Your task to perform on an android device: clear history in the chrome app Image 0: 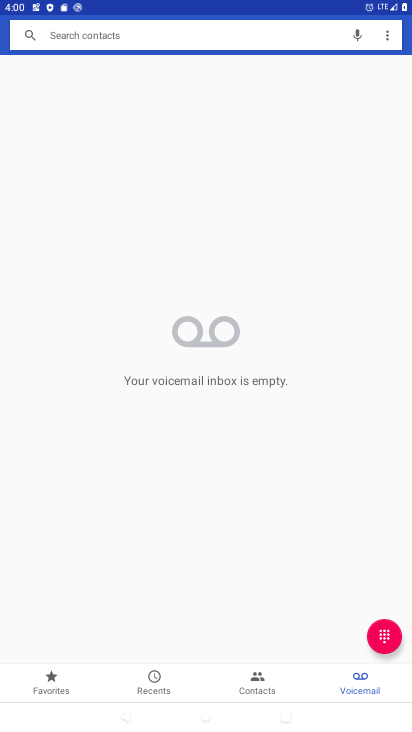
Step 0: press home button
Your task to perform on an android device: clear history in the chrome app Image 1: 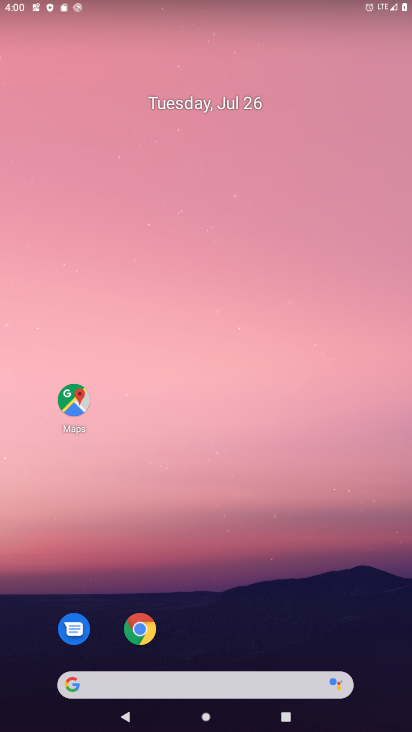
Step 1: click (143, 631)
Your task to perform on an android device: clear history in the chrome app Image 2: 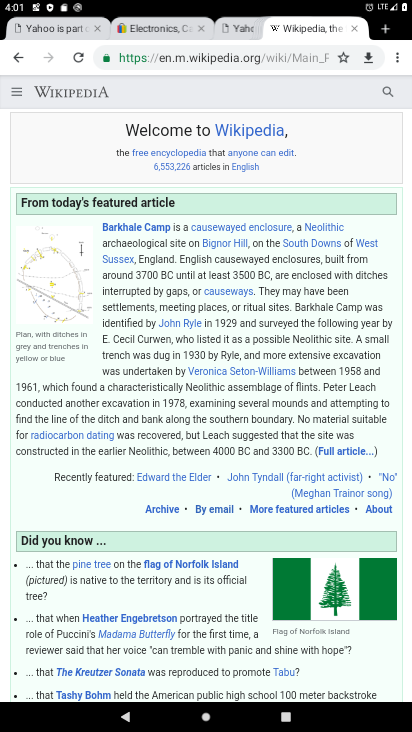
Step 2: click (396, 61)
Your task to perform on an android device: clear history in the chrome app Image 3: 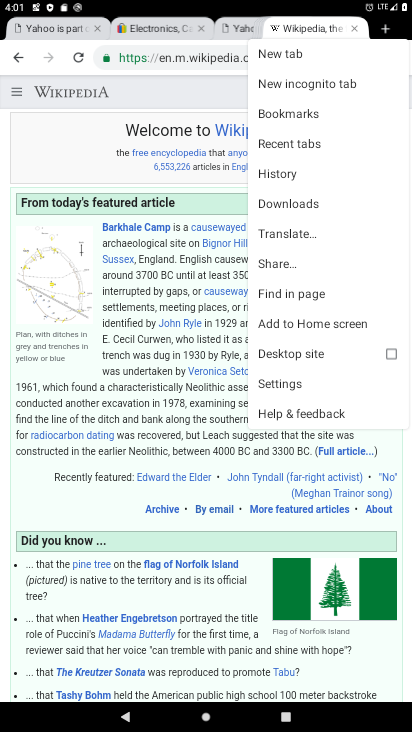
Step 3: click (277, 173)
Your task to perform on an android device: clear history in the chrome app Image 4: 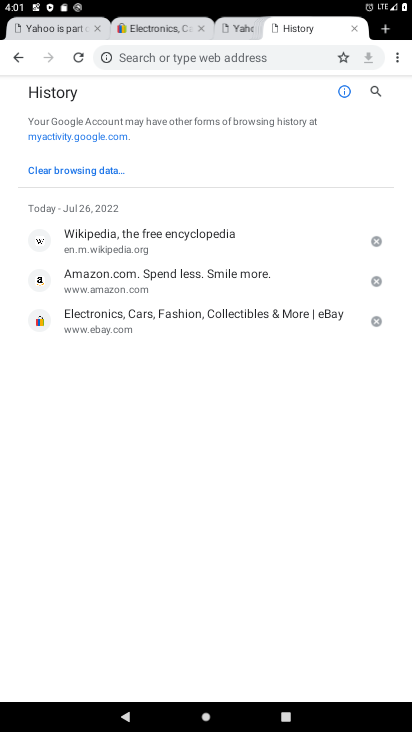
Step 4: click (89, 169)
Your task to perform on an android device: clear history in the chrome app Image 5: 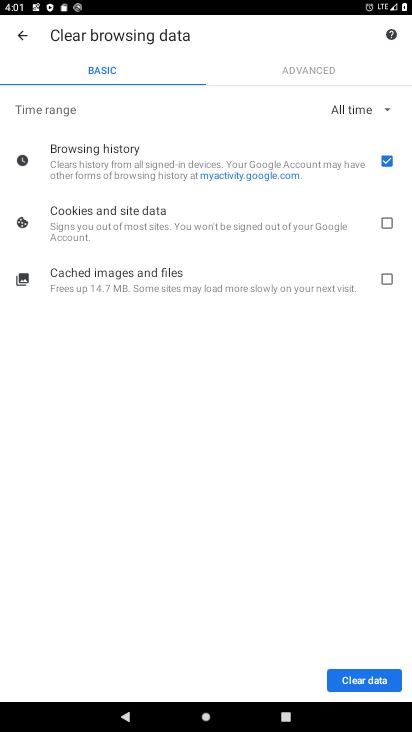
Step 5: click (361, 676)
Your task to perform on an android device: clear history in the chrome app Image 6: 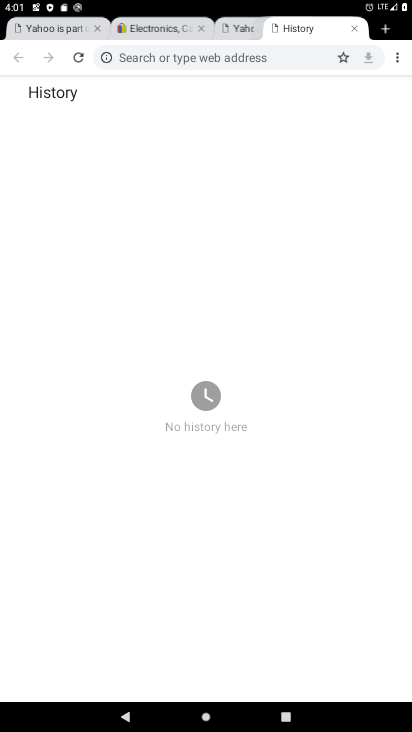
Step 6: task complete